Your task to perform on an android device: change the upload size in google photos Image 0: 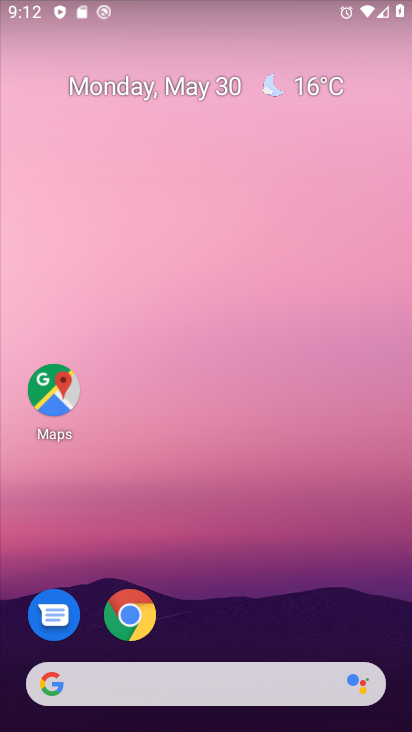
Step 0: drag from (262, 515) to (281, 34)
Your task to perform on an android device: change the upload size in google photos Image 1: 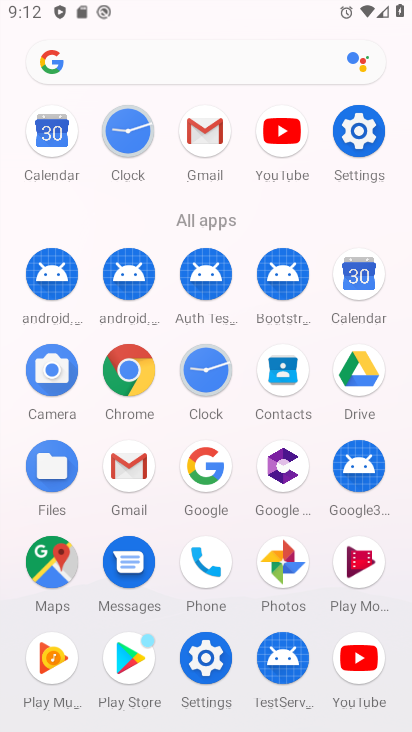
Step 1: click (282, 558)
Your task to perform on an android device: change the upload size in google photos Image 2: 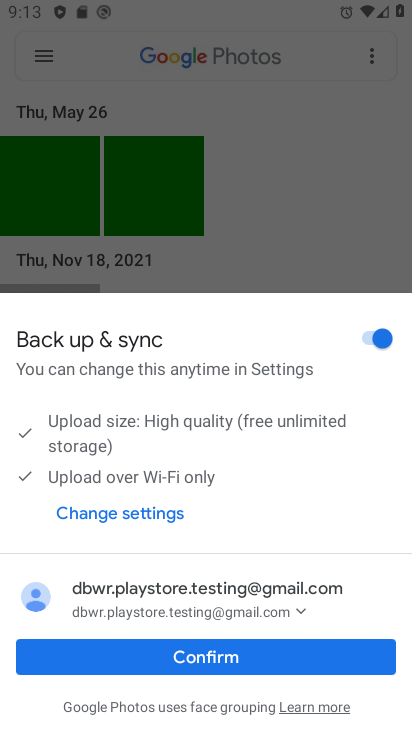
Step 2: click (221, 663)
Your task to perform on an android device: change the upload size in google photos Image 3: 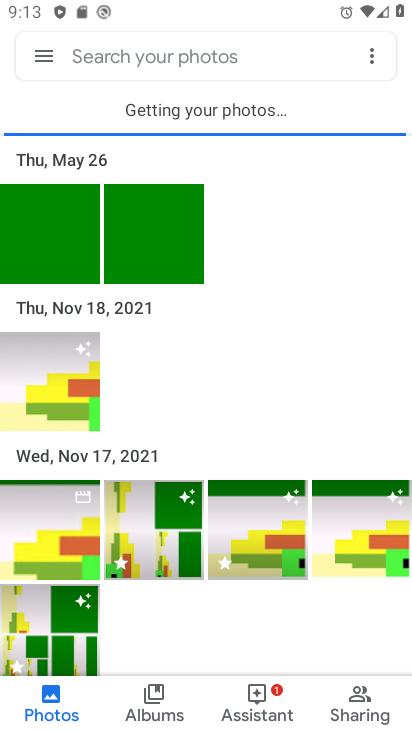
Step 3: click (38, 56)
Your task to perform on an android device: change the upload size in google photos Image 4: 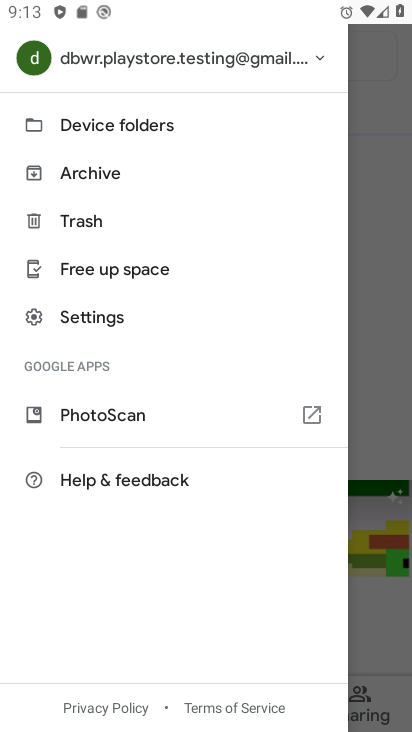
Step 4: click (101, 316)
Your task to perform on an android device: change the upload size in google photos Image 5: 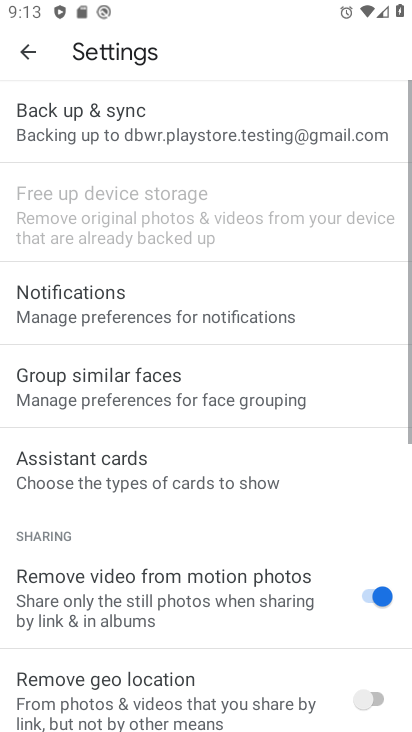
Step 5: click (126, 123)
Your task to perform on an android device: change the upload size in google photos Image 6: 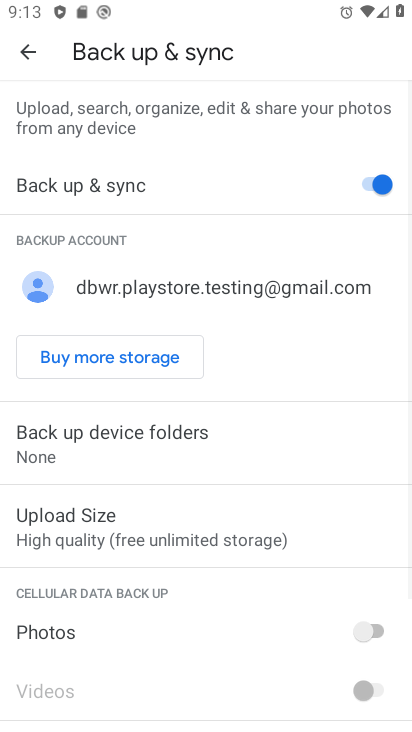
Step 6: click (83, 518)
Your task to perform on an android device: change the upload size in google photos Image 7: 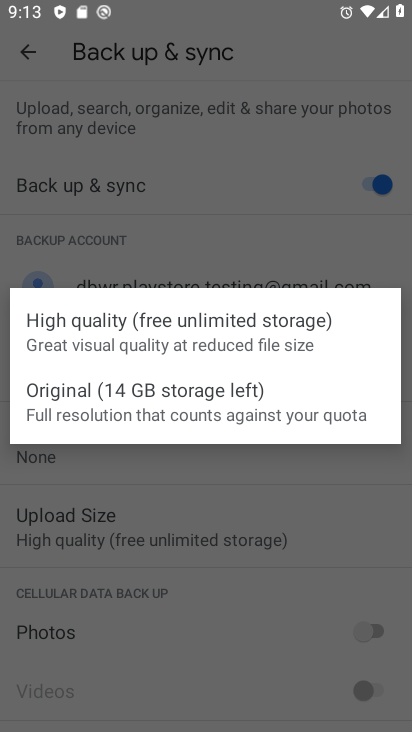
Step 7: click (111, 402)
Your task to perform on an android device: change the upload size in google photos Image 8: 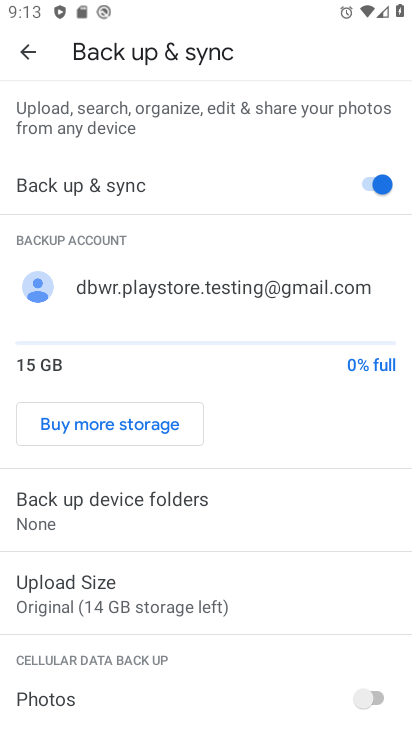
Step 8: task complete